Your task to perform on an android device: delete a single message in the gmail app Image 0: 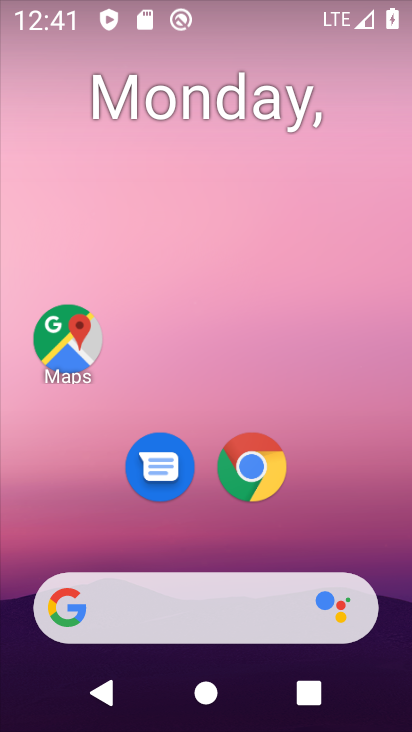
Step 0: drag from (393, 619) to (343, 55)
Your task to perform on an android device: delete a single message in the gmail app Image 1: 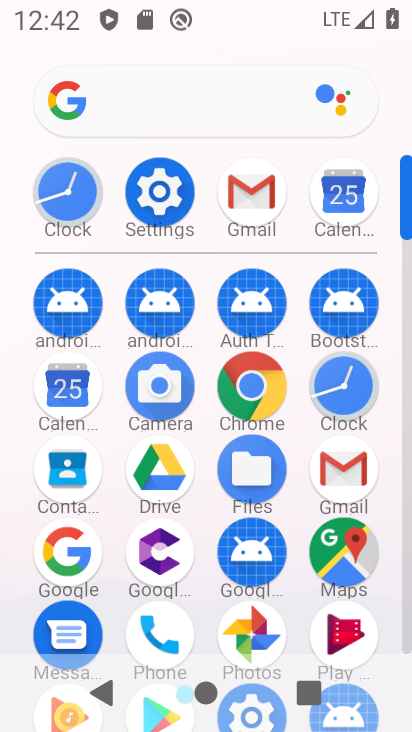
Step 1: click (409, 640)
Your task to perform on an android device: delete a single message in the gmail app Image 2: 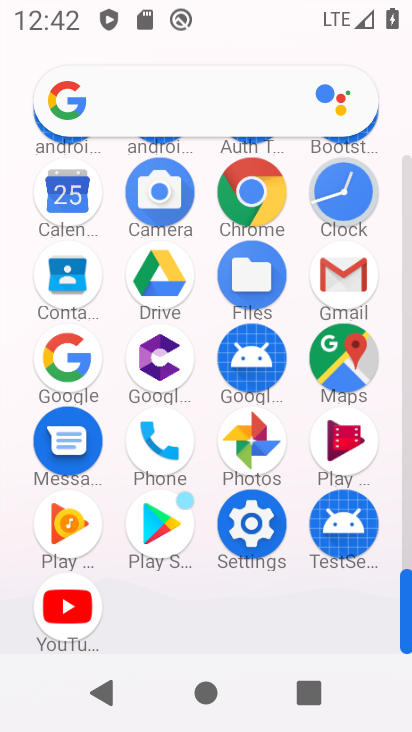
Step 2: click (344, 275)
Your task to perform on an android device: delete a single message in the gmail app Image 3: 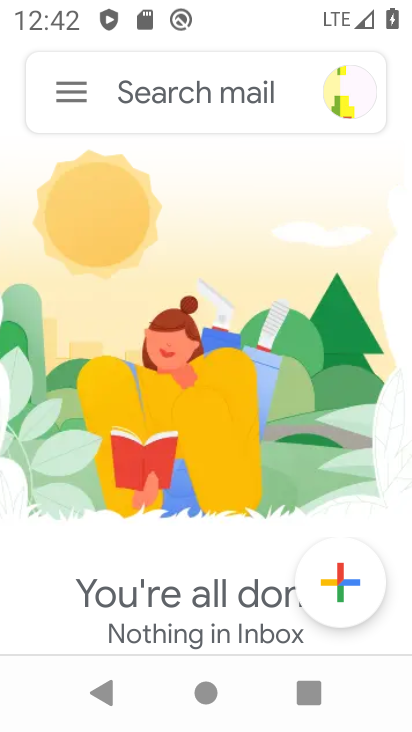
Step 3: click (70, 92)
Your task to perform on an android device: delete a single message in the gmail app Image 4: 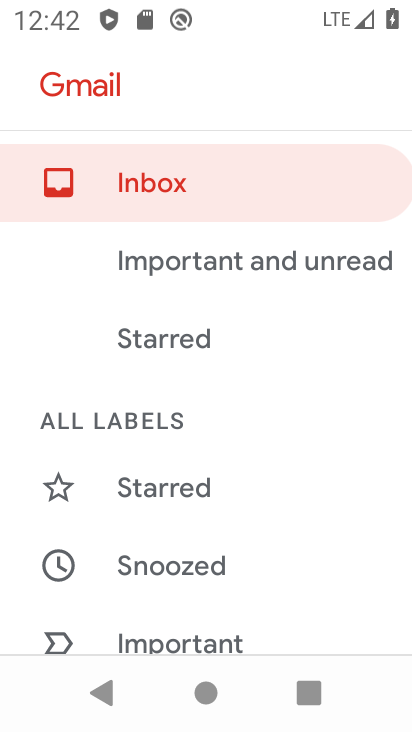
Step 4: drag from (293, 580) to (317, 273)
Your task to perform on an android device: delete a single message in the gmail app Image 5: 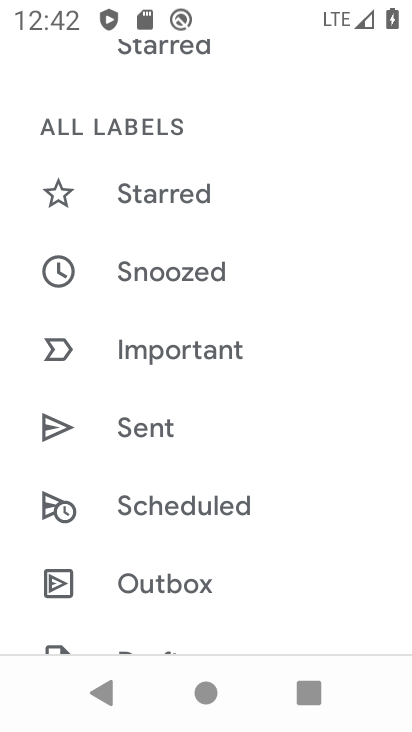
Step 5: drag from (234, 600) to (339, 218)
Your task to perform on an android device: delete a single message in the gmail app Image 6: 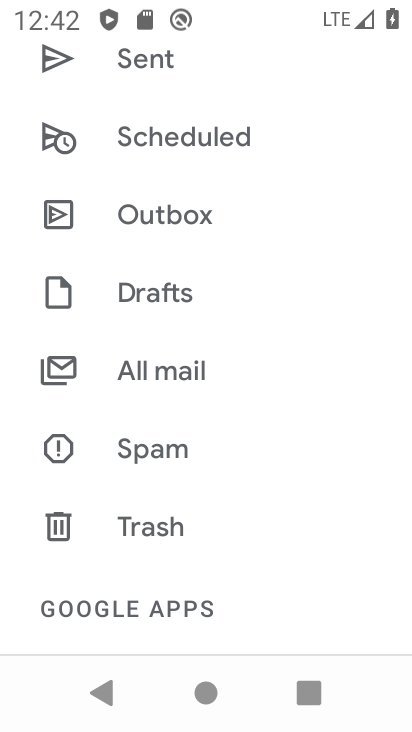
Step 6: click (154, 367)
Your task to perform on an android device: delete a single message in the gmail app Image 7: 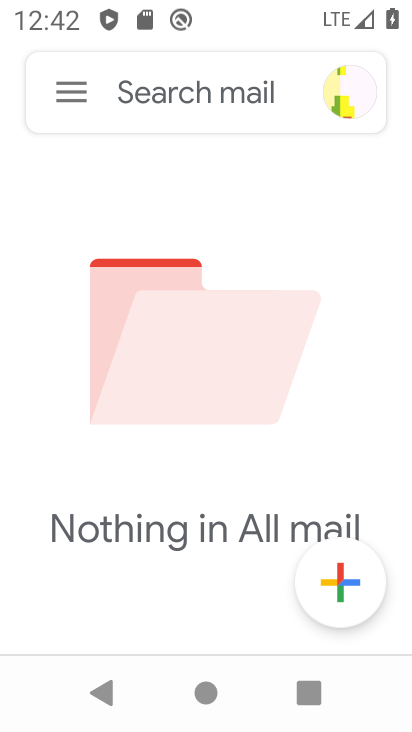
Step 7: task complete